Your task to perform on an android device: open sync settings in chrome Image 0: 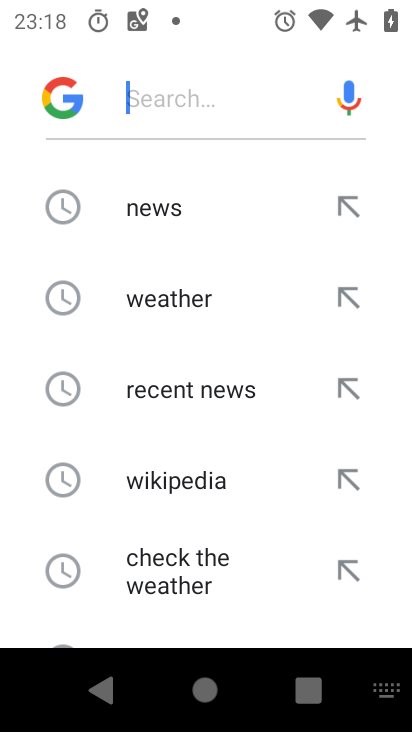
Step 0: press home button
Your task to perform on an android device: open sync settings in chrome Image 1: 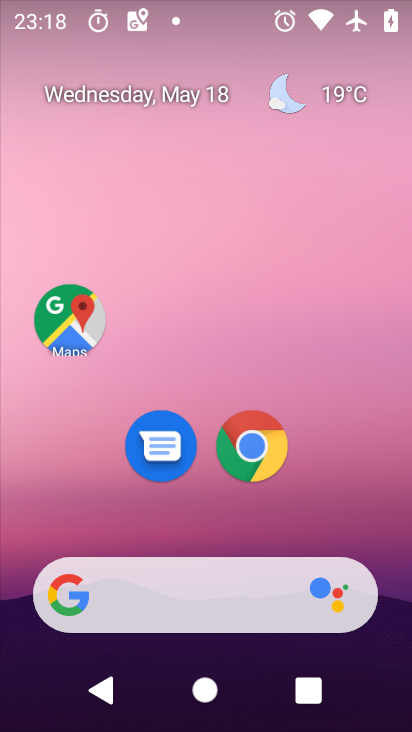
Step 1: click (260, 460)
Your task to perform on an android device: open sync settings in chrome Image 2: 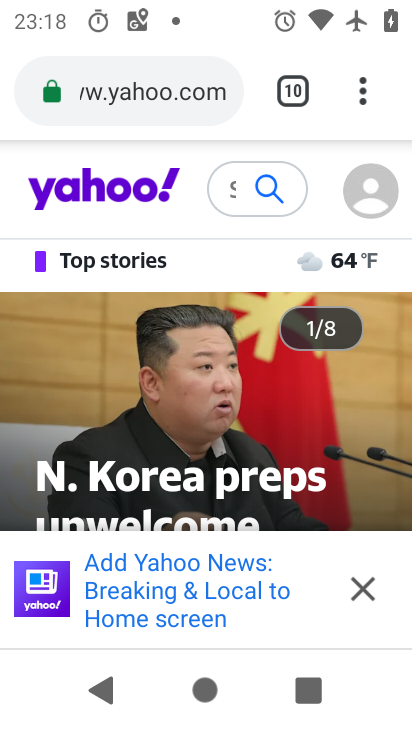
Step 2: drag from (363, 97) to (256, 477)
Your task to perform on an android device: open sync settings in chrome Image 3: 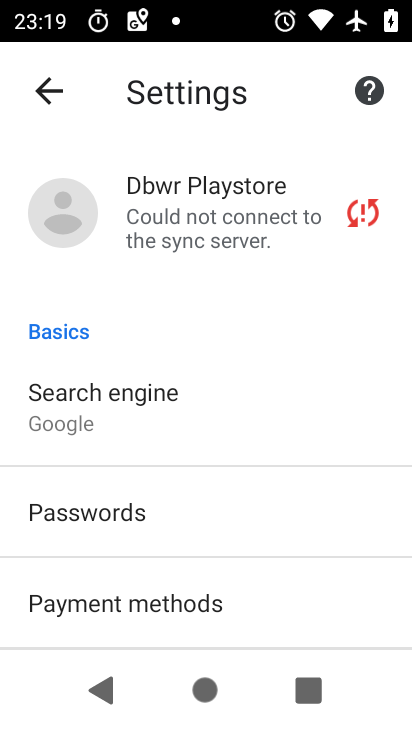
Step 3: click (212, 215)
Your task to perform on an android device: open sync settings in chrome Image 4: 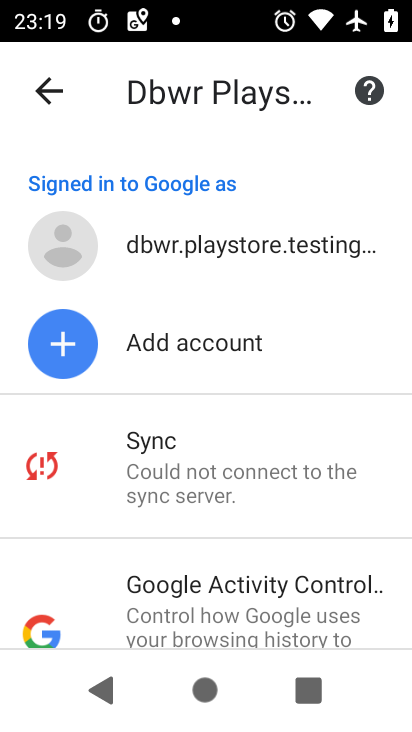
Step 4: click (197, 472)
Your task to perform on an android device: open sync settings in chrome Image 5: 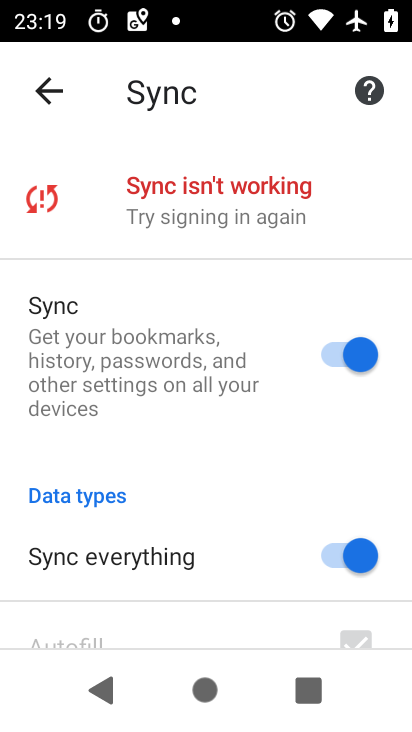
Step 5: task complete